Your task to perform on an android device: Open calendar and show me the third week of next month Image 0: 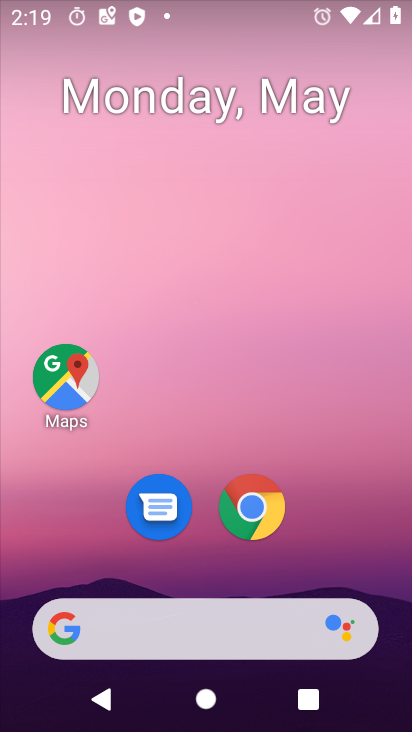
Step 0: drag from (242, 721) to (227, 8)
Your task to perform on an android device: Open calendar and show me the third week of next month Image 1: 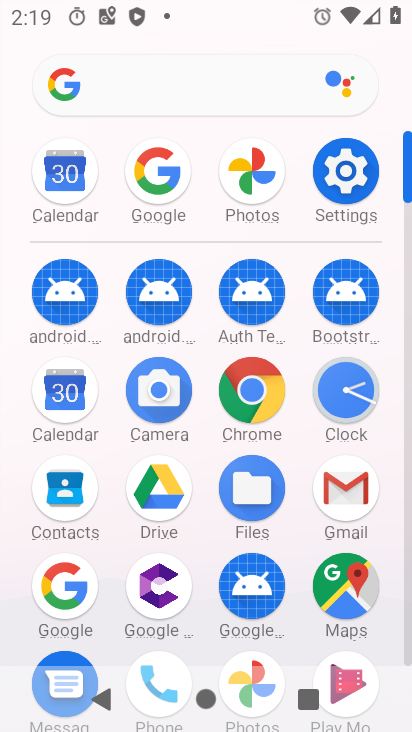
Step 1: click (62, 400)
Your task to perform on an android device: Open calendar and show me the third week of next month Image 2: 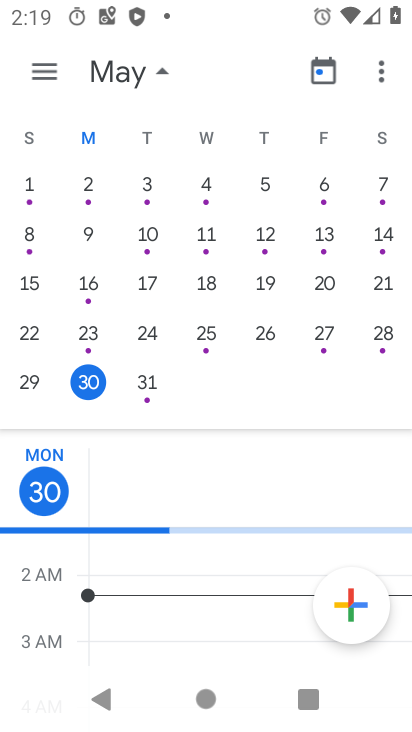
Step 2: drag from (327, 247) to (0, 263)
Your task to perform on an android device: Open calendar and show me the third week of next month Image 3: 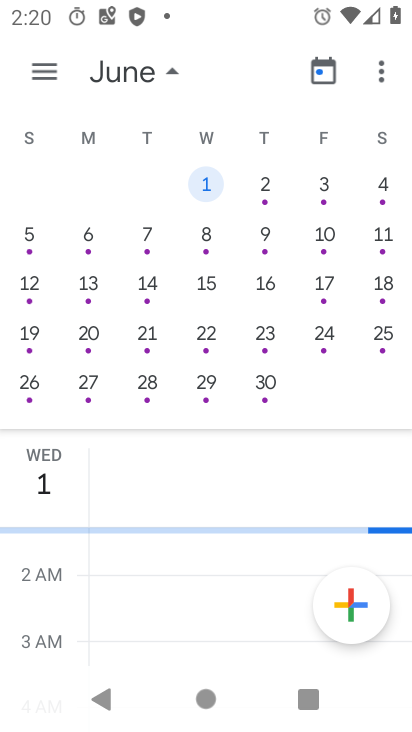
Step 3: click (85, 329)
Your task to perform on an android device: Open calendar and show me the third week of next month Image 4: 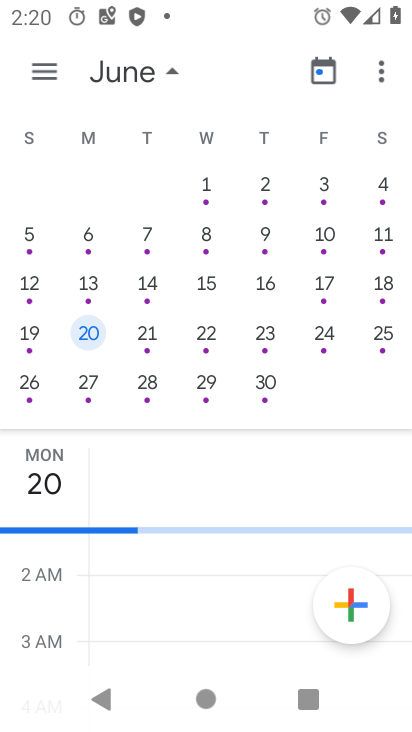
Step 4: click (40, 74)
Your task to perform on an android device: Open calendar and show me the third week of next month Image 5: 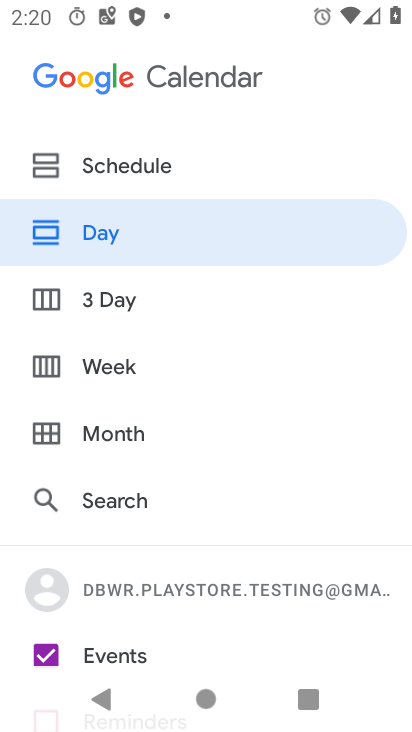
Step 5: click (116, 366)
Your task to perform on an android device: Open calendar and show me the third week of next month Image 6: 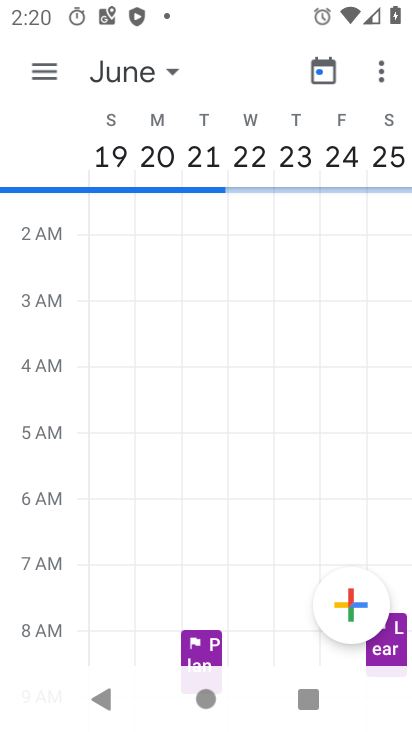
Step 6: task complete